Your task to perform on an android device: clear all cookies in the chrome app Image 0: 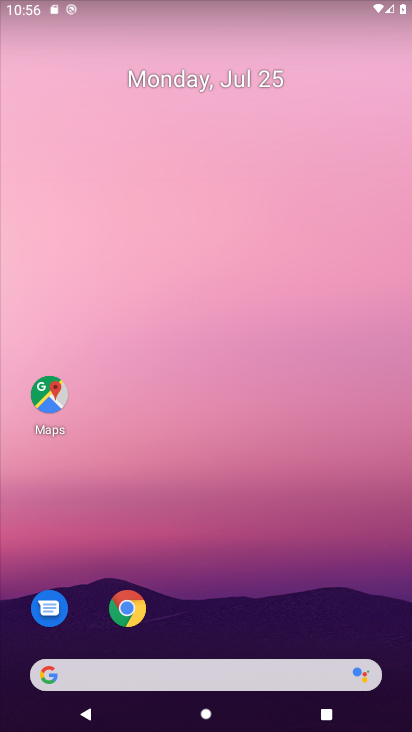
Step 0: click (123, 615)
Your task to perform on an android device: clear all cookies in the chrome app Image 1: 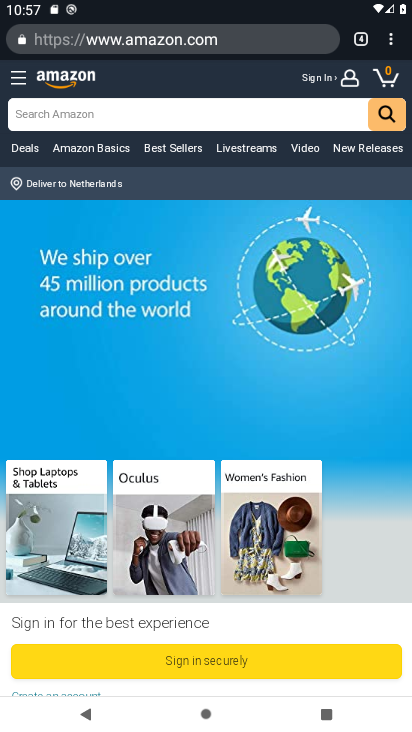
Step 1: click (391, 30)
Your task to perform on an android device: clear all cookies in the chrome app Image 2: 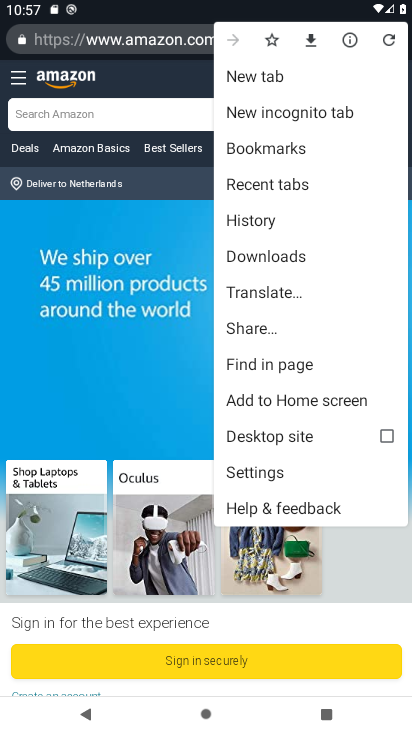
Step 2: click (250, 75)
Your task to perform on an android device: clear all cookies in the chrome app Image 3: 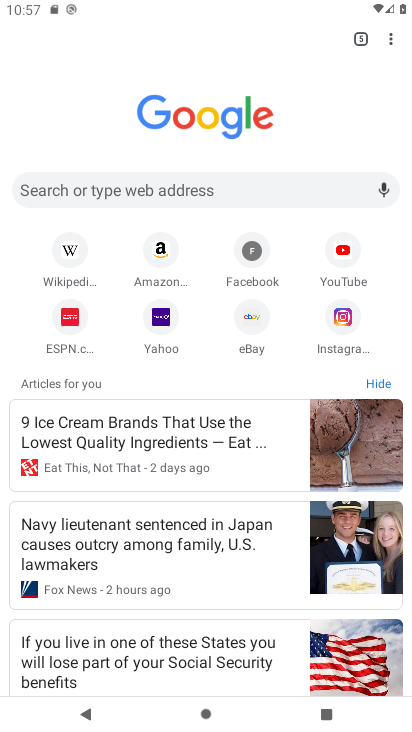
Step 3: click (394, 40)
Your task to perform on an android device: clear all cookies in the chrome app Image 4: 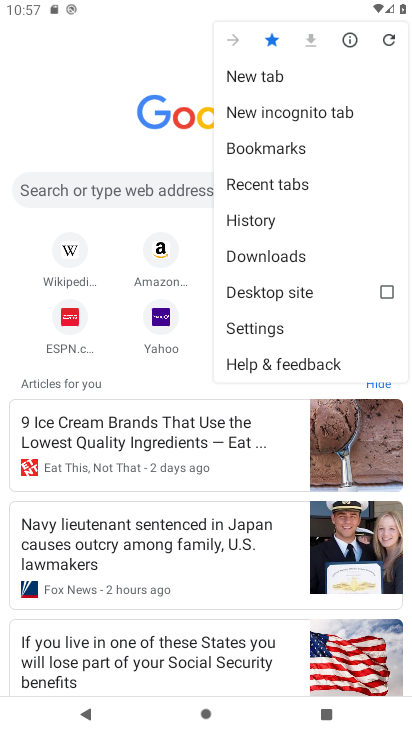
Step 4: click (261, 320)
Your task to perform on an android device: clear all cookies in the chrome app Image 5: 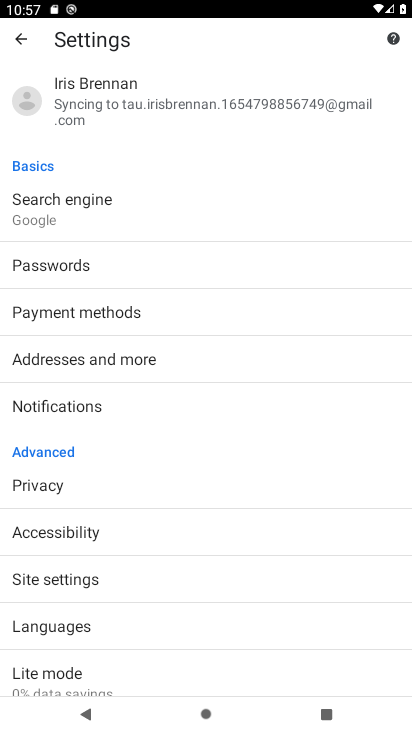
Step 5: click (47, 483)
Your task to perform on an android device: clear all cookies in the chrome app Image 6: 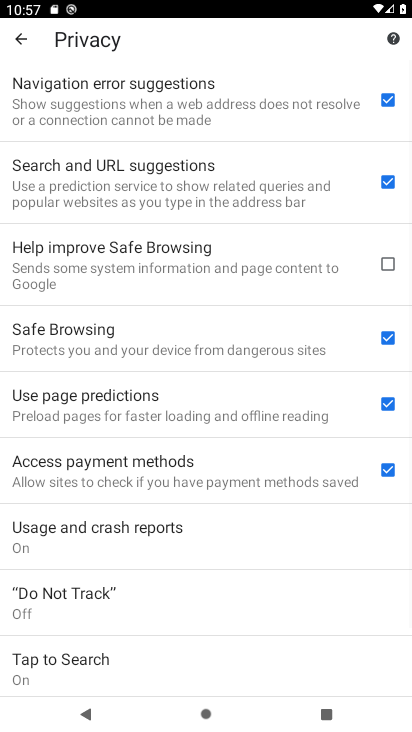
Step 6: drag from (119, 657) to (174, 133)
Your task to perform on an android device: clear all cookies in the chrome app Image 7: 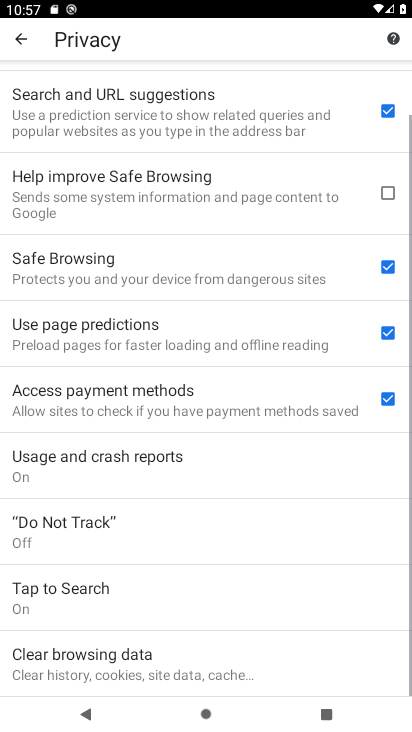
Step 7: click (139, 670)
Your task to perform on an android device: clear all cookies in the chrome app Image 8: 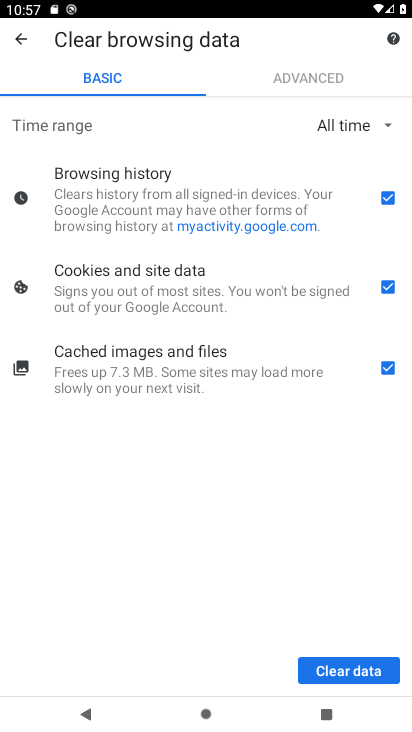
Step 8: click (341, 664)
Your task to perform on an android device: clear all cookies in the chrome app Image 9: 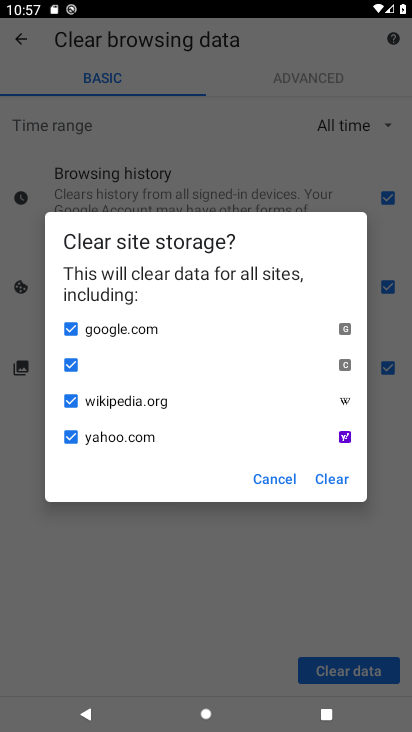
Step 9: click (331, 464)
Your task to perform on an android device: clear all cookies in the chrome app Image 10: 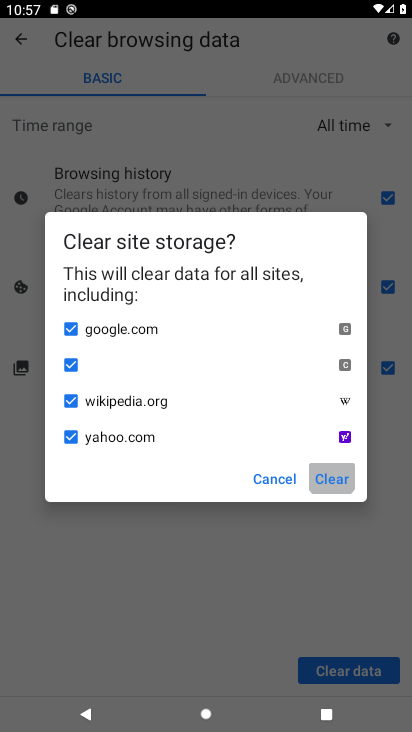
Step 10: click (329, 472)
Your task to perform on an android device: clear all cookies in the chrome app Image 11: 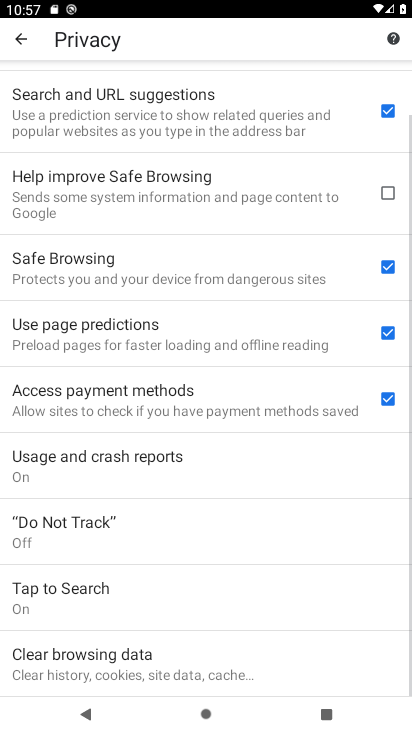
Step 11: task complete